Your task to perform on an android device: Search for seafood restaurants on Google Maps Image 0: 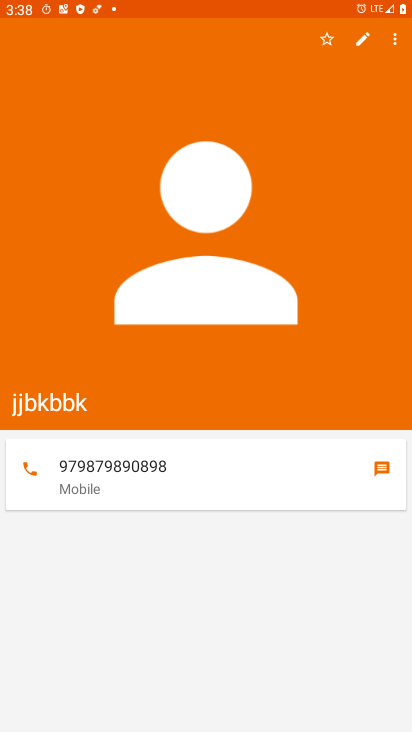
Step 0: press home button
Your task to perform on an android device: Search for seafood restaurants on Google Maps Image 1: 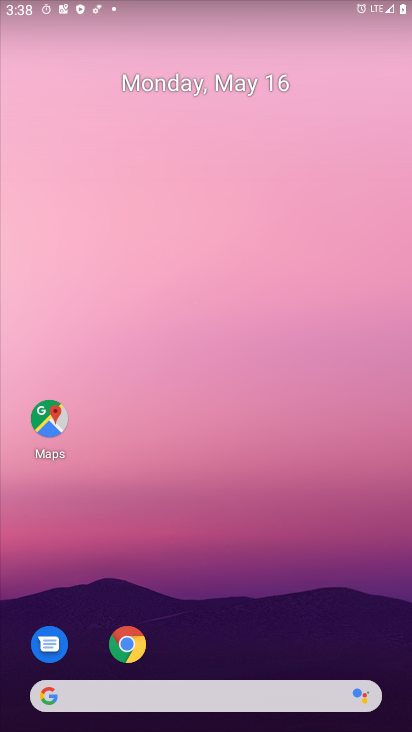
Step 1: drag from (191, 616) to (209, 116)
Your task to perform on an android device: Search for seafood restaurants on Google Maps Image 2: 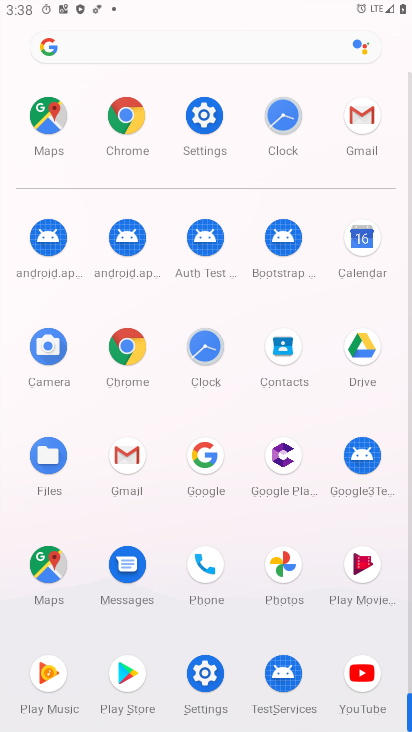
Step 2: click (209, 482)
Your task to perform on an android device: Search for seafood restaurants on Google Maps Image 3: 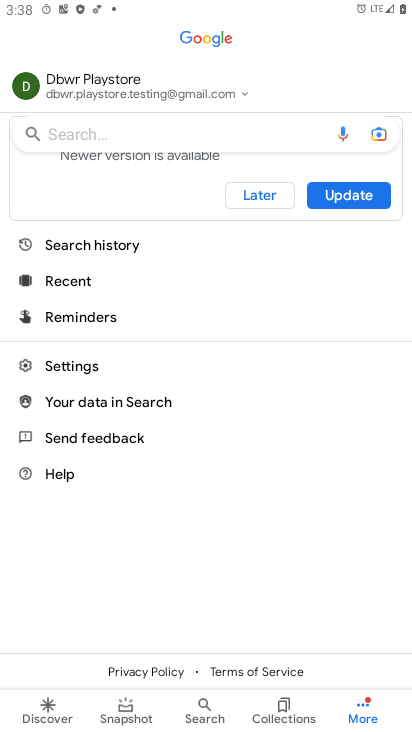
Step 3: press home button
Your task to perform on an android device: Search for seafood restaurants on Google Maps Image 4: 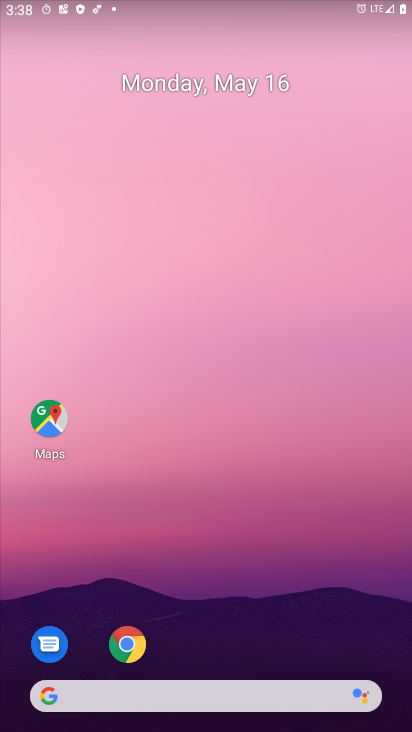
Step 4: drag from (210, 530) to (222, 0)
Your task to perform on an android device: Search for seafood restaurants on Google Maps Image 5: 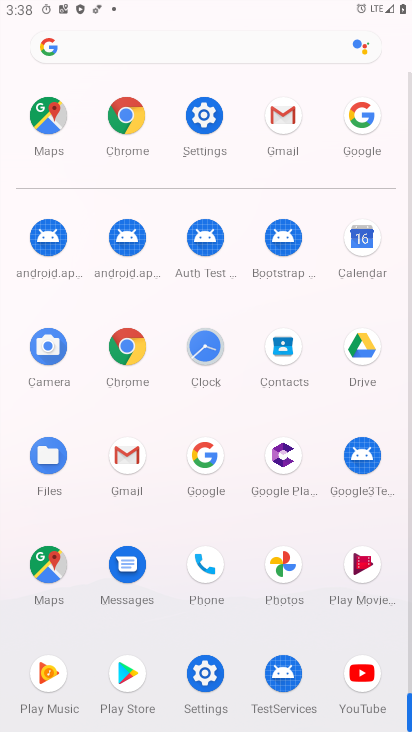
Step 5: click (45, 571)
Your task to perform on an android device: Search for seafood restaurants on Google Maps Image 6: 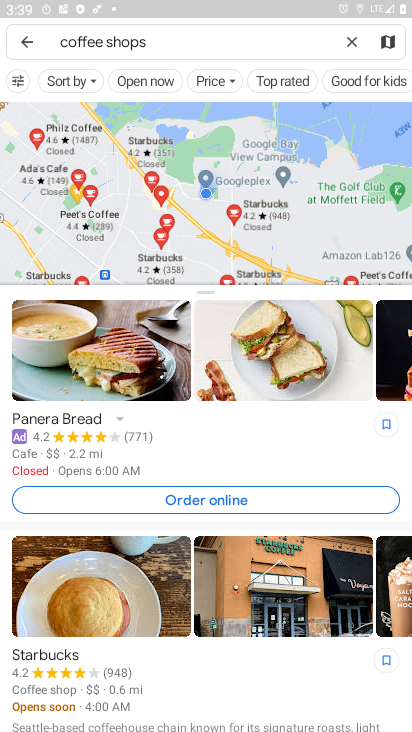
Step 6: click (351, 45)
Your task to perform on an android device: Search for seafood restaurants on Google Maps Image 7: 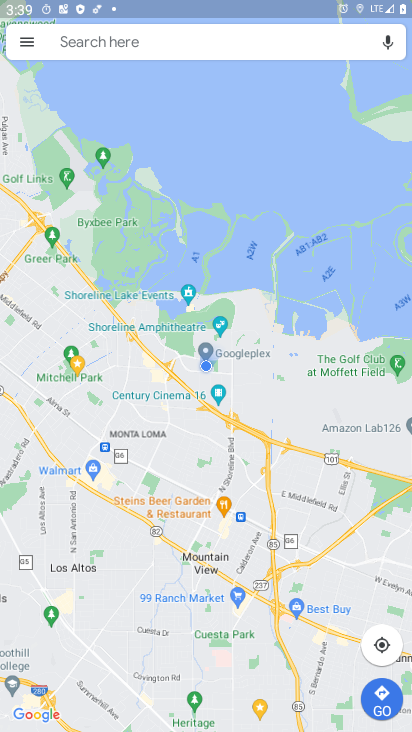
Step 7: click (170, 39)
Your task to perform on an android device: Search for seafood restaurants on Google Maps Image 8: 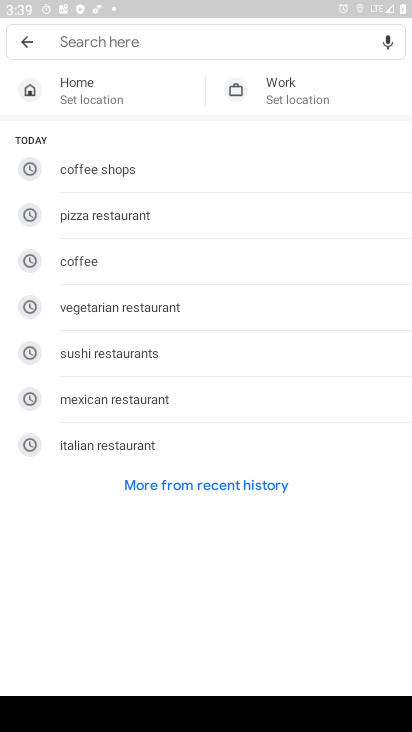
Step 8: click (141, 40)
Your task to perform on an android device: Search for seafood restaurants on Google Maps Image 9: 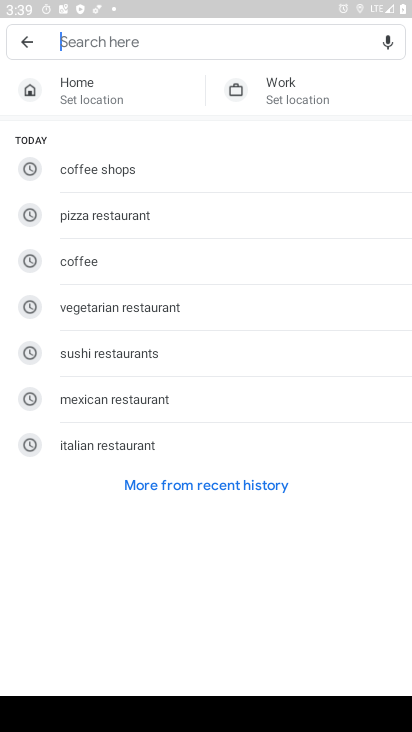
Step 9: type "seafood restaurants"
Your task to perform on an android device: Search for seafood restaurants on Google Maps Image 10: 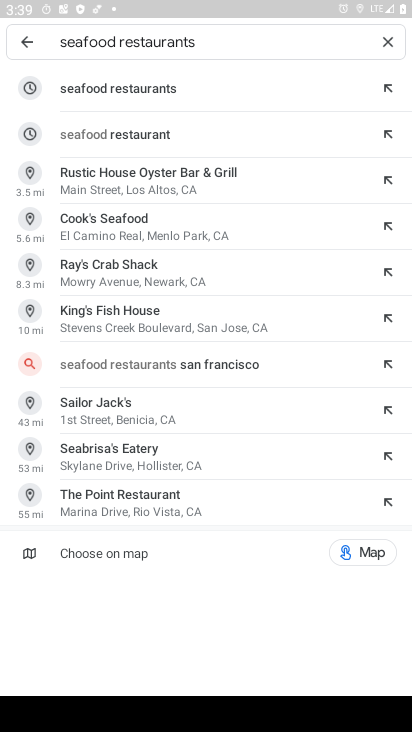
Step 10: click (158, 92)
Your task to perform on an android device: Search for seafood restaurants on Google Maps Image 11: 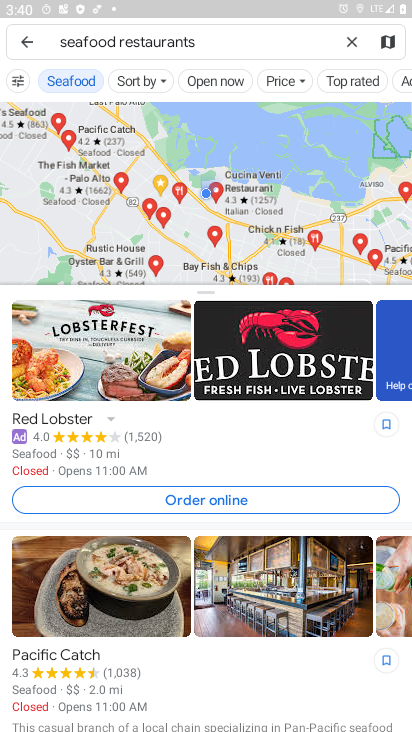
Step 11: task complete